Your task to perform on an android device: Open notification settings Image 0: 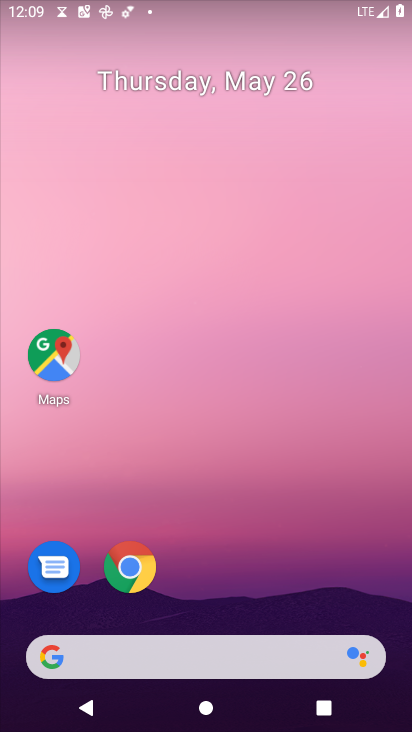
Step 0: drag from (260, 580) to (217, 66)
Your task to perform on an android device: Open notification settings Image 1: 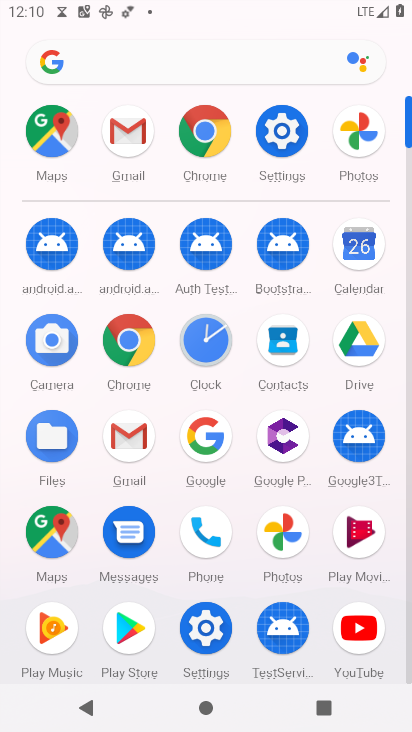
Step 1: click (295, 126)
Your task to perform on an android device: Open notification settings Image 2: 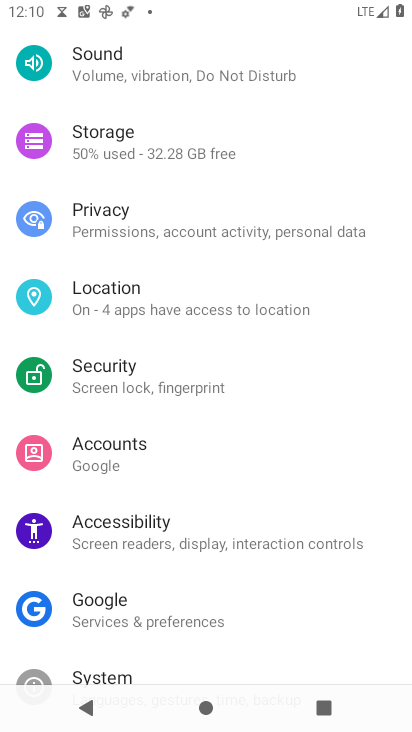
Step 2: drag from (177, 563) to (172, 102)
Your task to perform on an android device: Open notification settings Image 3: 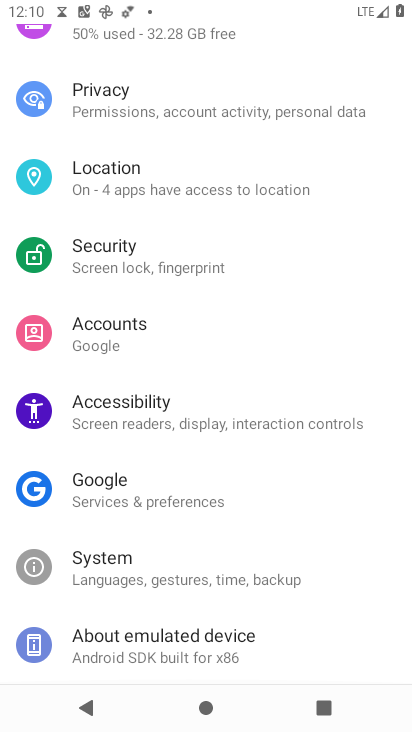
Step 3: drag from (174, 91) to (233, 566)
Your task to perform on an android device: Open notification settings Image 4: 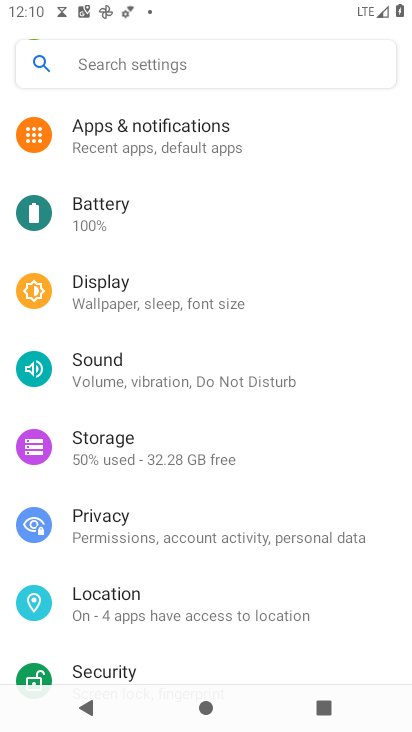
Step 4: click (248, 159)
Your task to perform on an android device: Open notification settings Image 5: 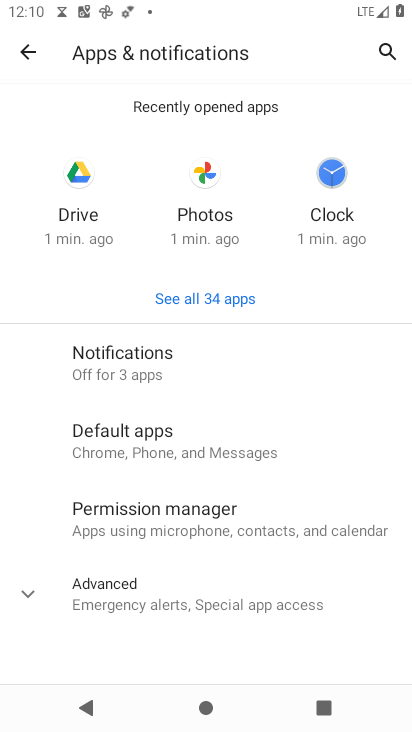
Step 5: task complete